Your task to perform on an android device: Clear the shopping cart on bestbuy.com. Search for bose quietcomfort 35 on bestbuy.com, select the first entry, and add it to the cart. Image 0: 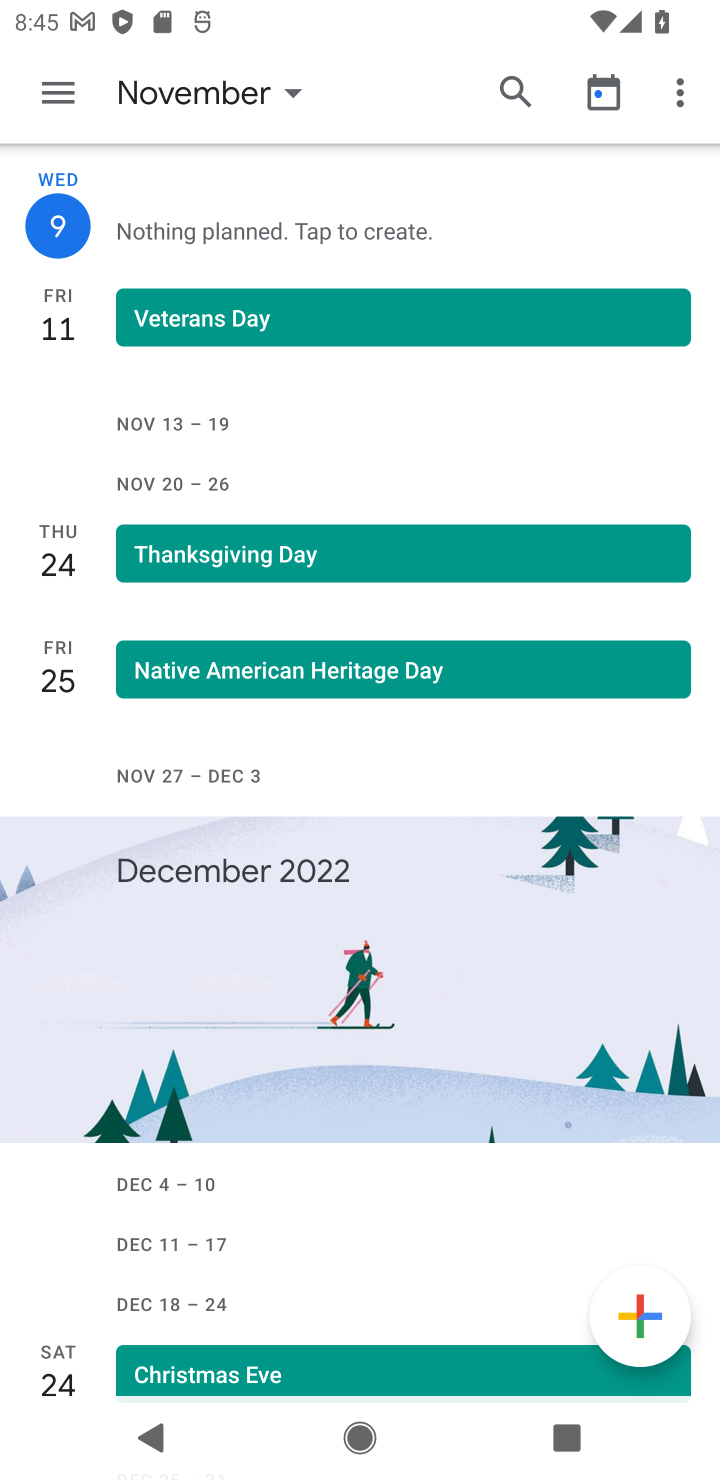
Step 0: press home button
Your task to perform on an android device: Clear the shopping cart on bestbuy.com. Search for bose quietcomfort 35 on bestbuy.com, select the first entry, and add it to the cart. Image 1: 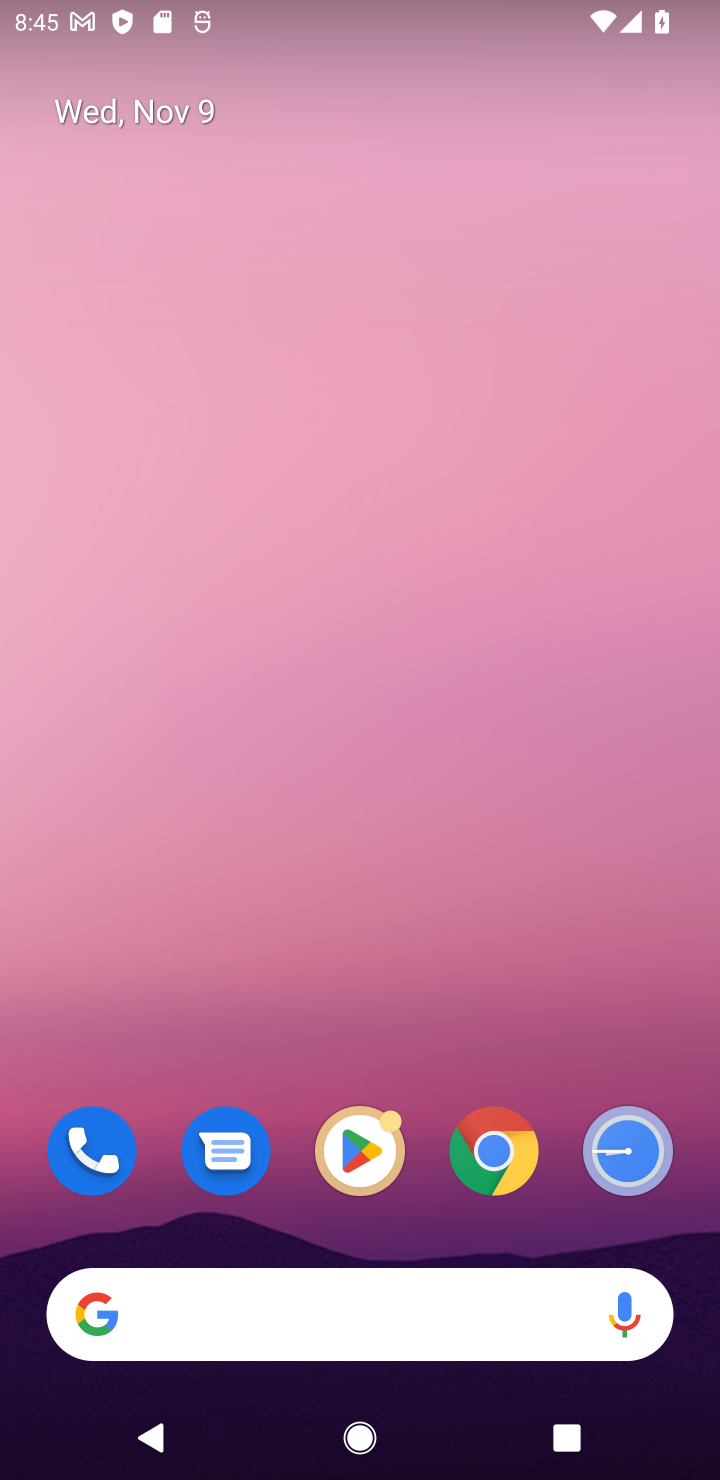
Step 1: click (518, 1164)
Your task to perform on an android device: Clear the shopping cart on bestbuy.com. Search for bose quietcomfort 35 on bestbuy.com, select the first entry, and add it to the cart. Image 2: 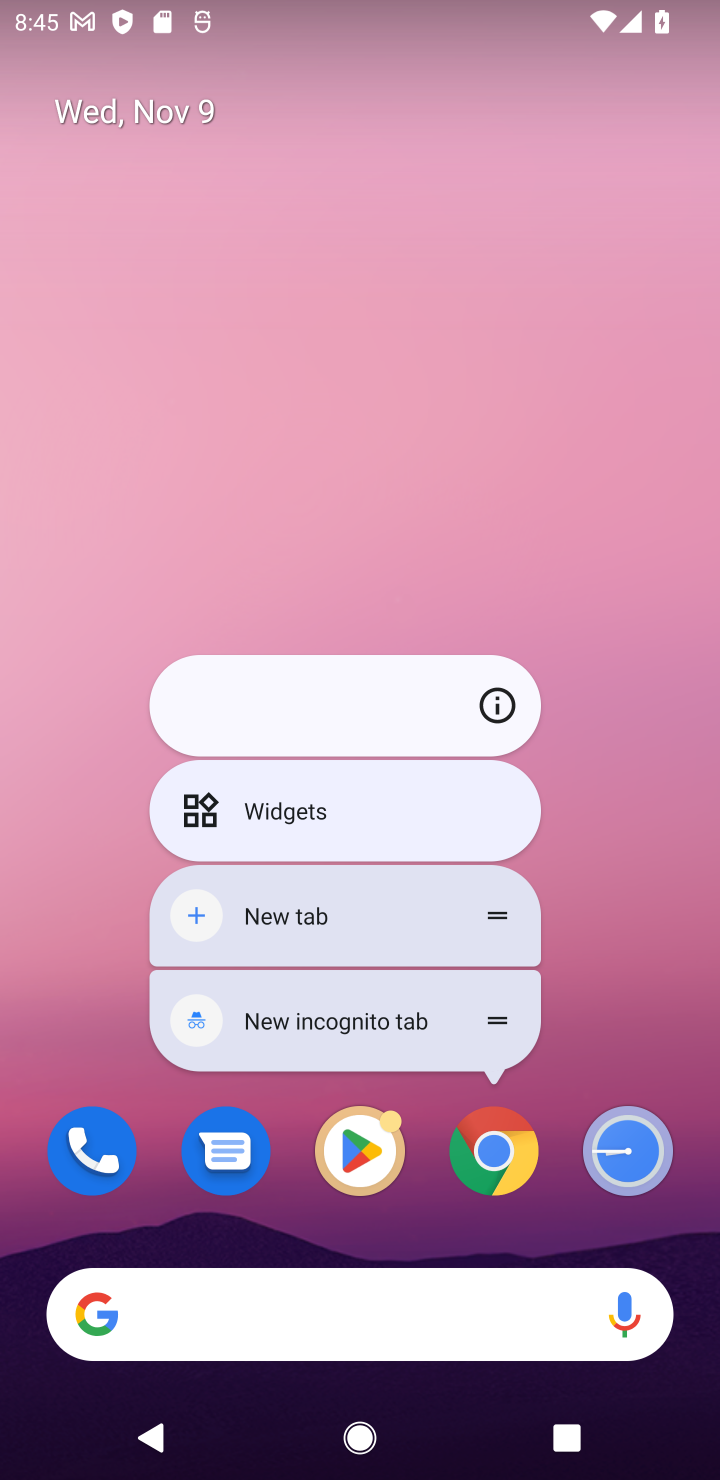
Step 2: click (514, 1148)
Your task to perform on an android device: Clear the shopping cart on bestbuy.com. Search for bose quietcomfort 35 on bestbuy.com, select the first entry, and add it to the cart. Image 3: 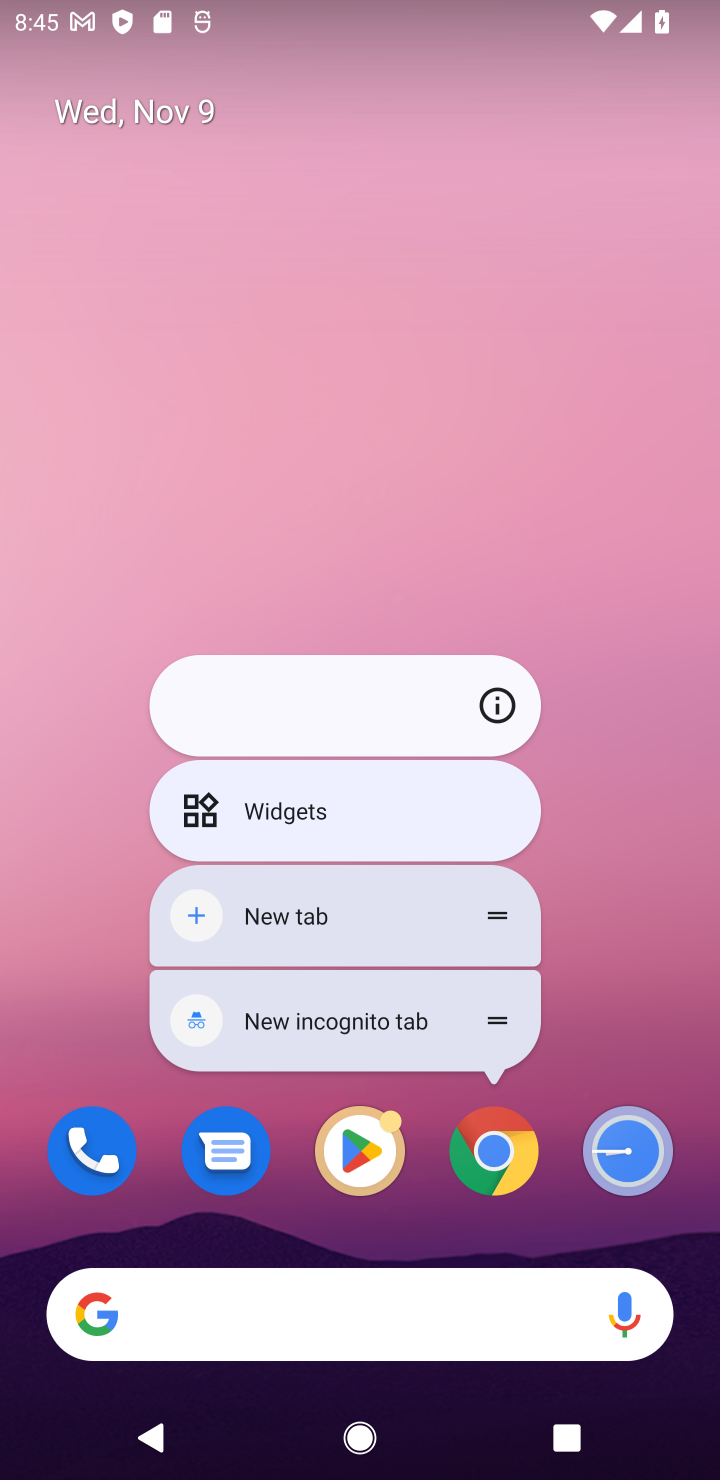
Step 3: click (514, 1148)
Your task to perform on an android device: Clear the shopping cart on bestbuy.com. Search for bose quietcomfort 35 on bestbuy.com, select the first entry, and add it to the cart. Image 4: 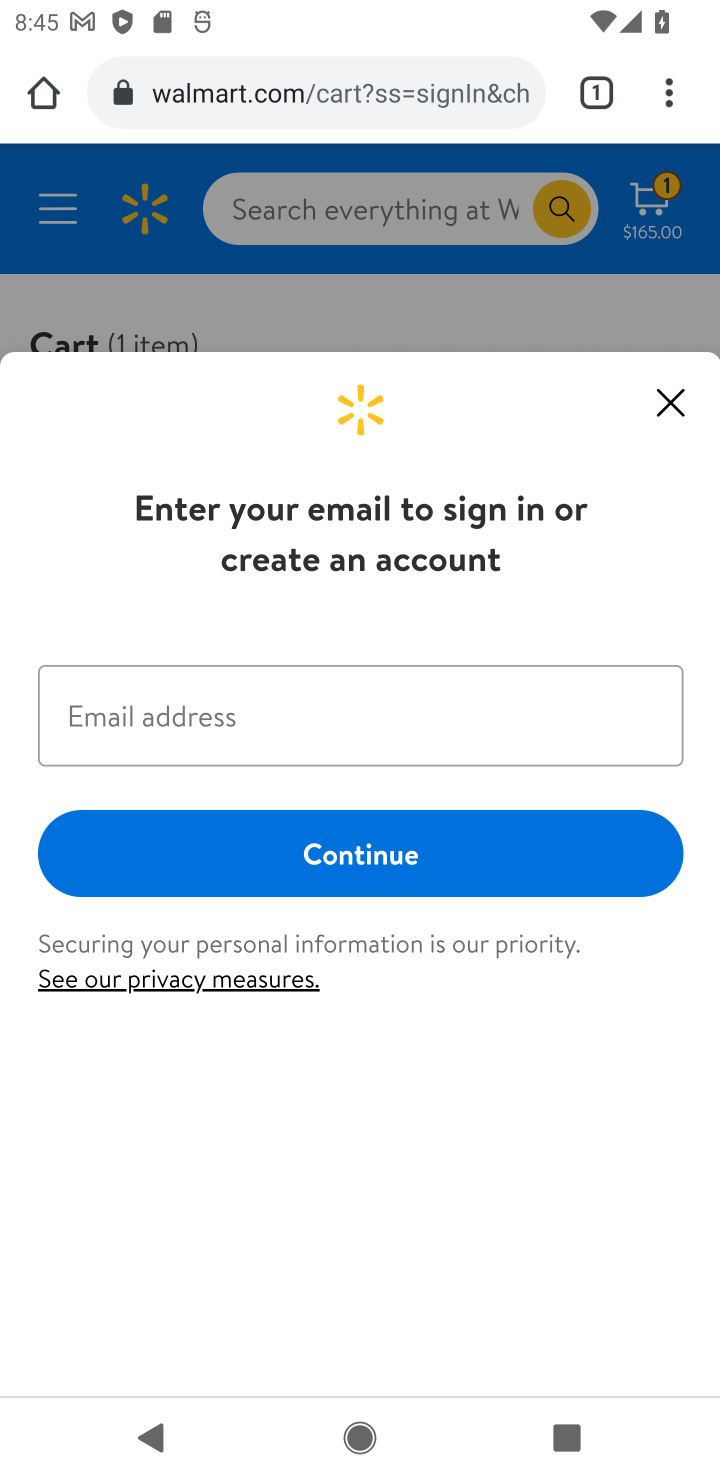
Step 4: click (514, 1148)
Your task to perform on an android device: Clear the shopping cart on bestbuy.com. Search for bose quietcomfort 35 on bestbuy.com, select the first entry, and add it to the cart. Image 5: 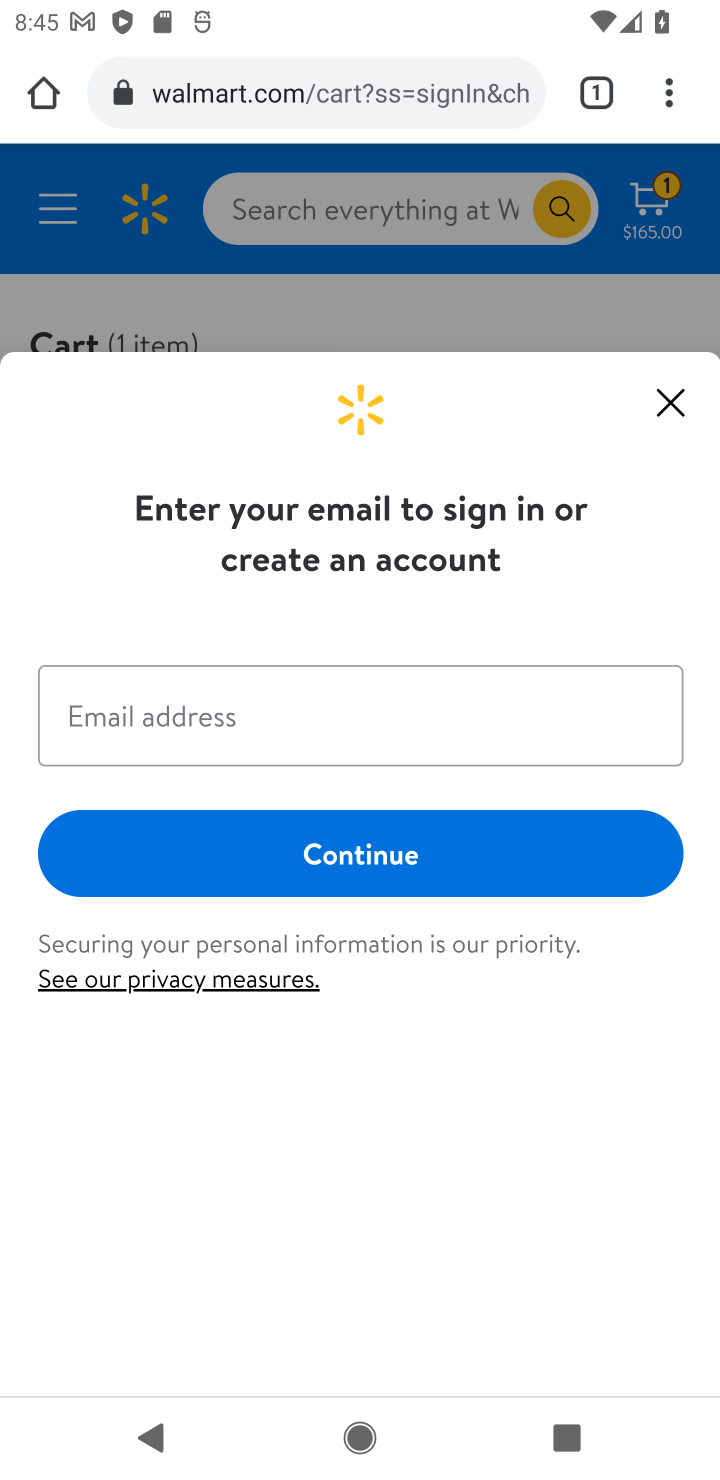
Step 5: click (285, 102)
Your task to perform on an android device: Clear the shopping cart on bestbuy.com. Search for bose quietcomfort 35 on bestbuy.com, select the first entry, and add it to the cart. Image 6: 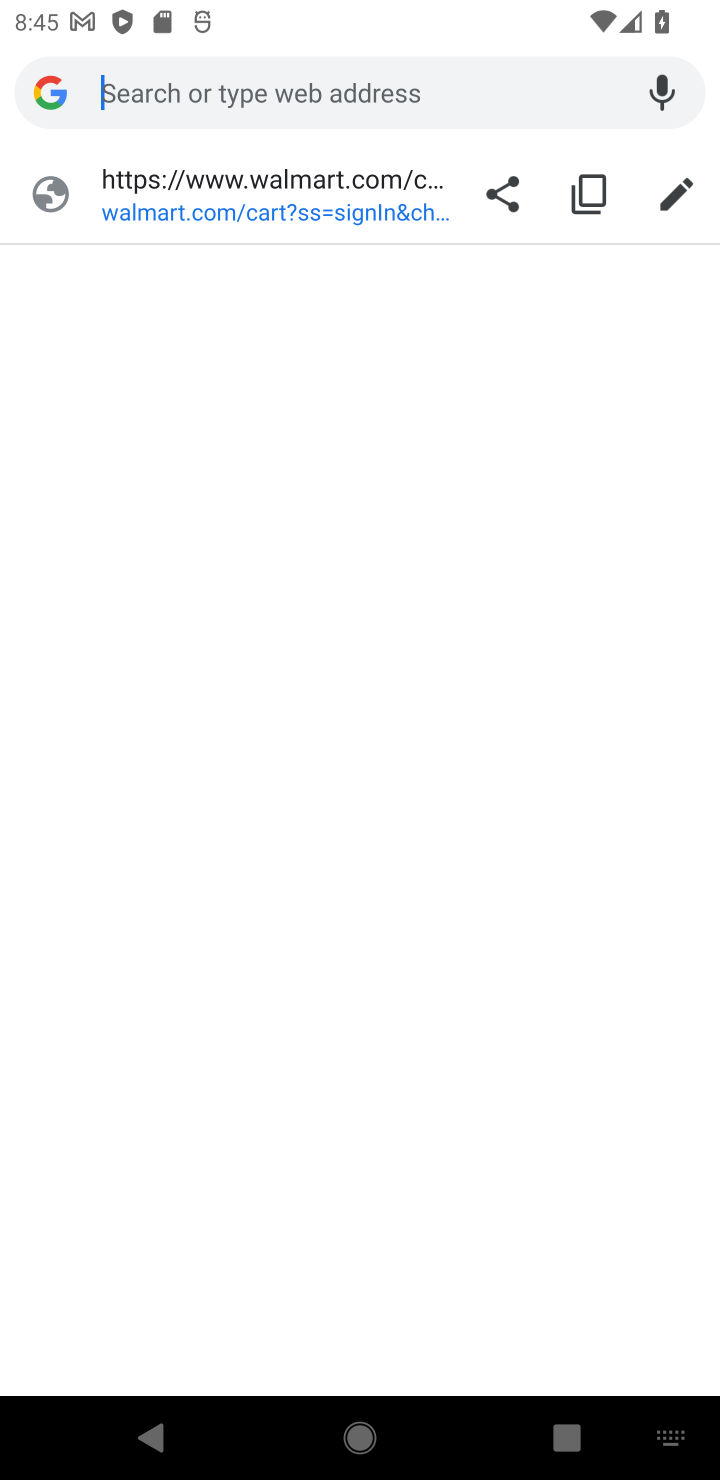
Step 6: type "bestbuy.com"
Your task to perform on an android device: Clear the shopping cart on bestbuy.com. Search for bose quietcomfort 35 on bestbuy.com, select the first entry, and add it to the cart. Image 7: 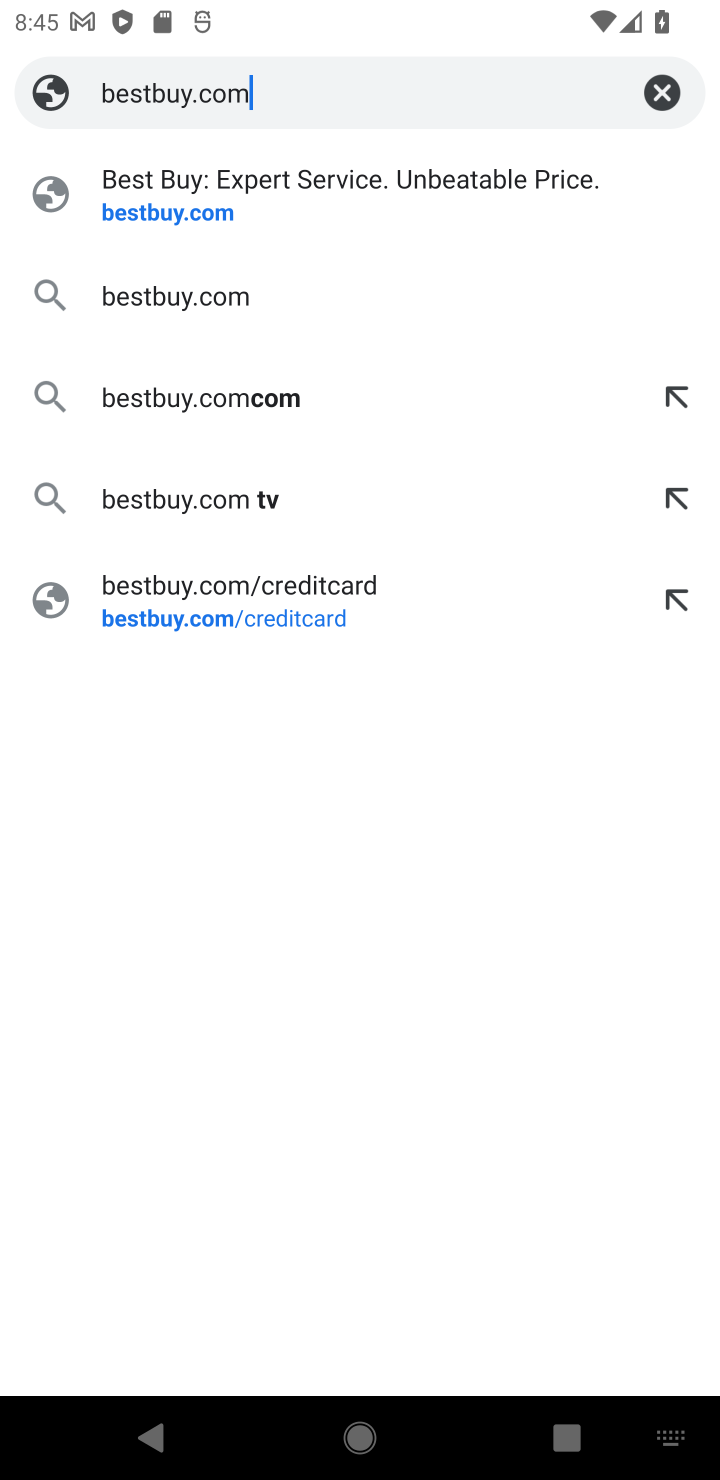
Step 7: press enter
Your task to perform on an android device: Clear the shopping cart on bestbuy.com. Search for bose quietcomfort 35 on bestbuy.com, select the first entry, and add it to the cart. Image 8: 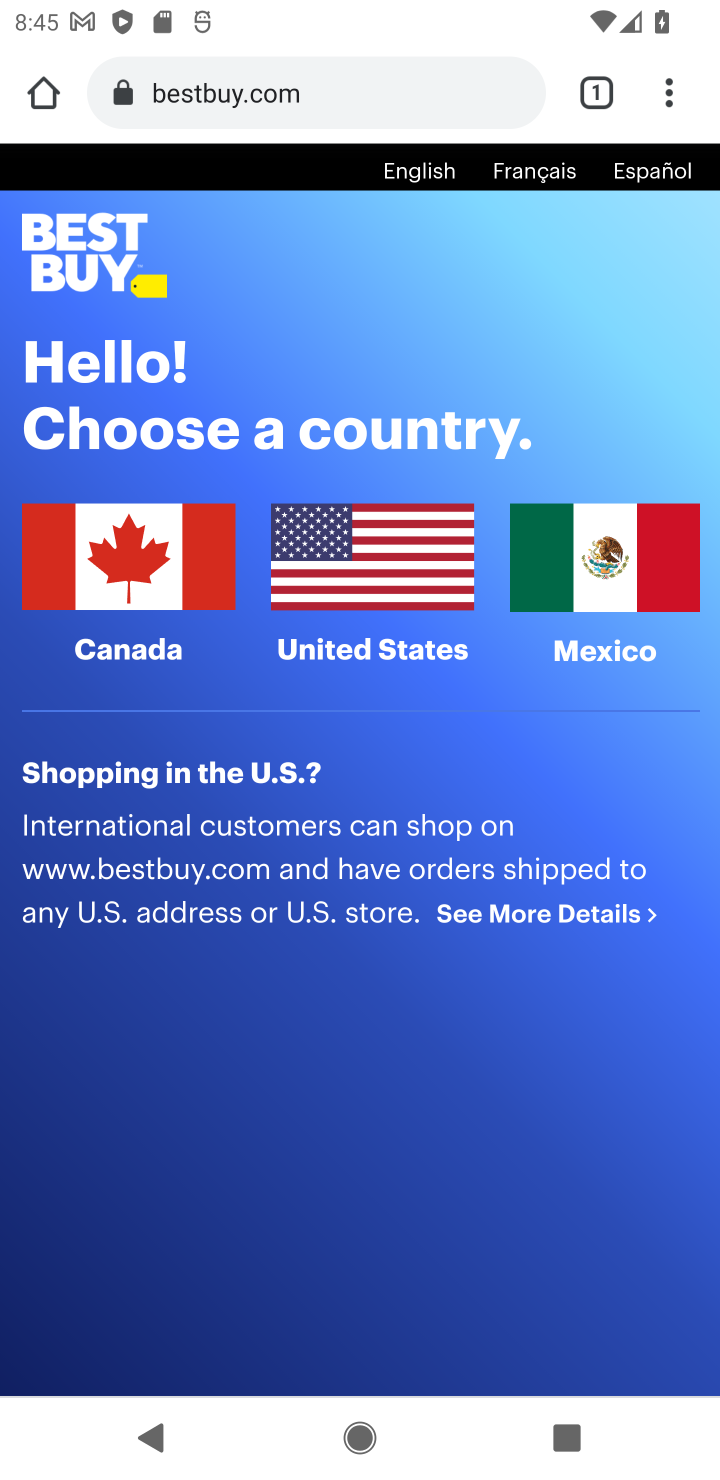
Step 8: click (373, 580)
Your task to perform on an android device: Clear the shopping cart on bestbuy.com. Search for bose quietcomfort 35 on bestbuy.com, select the first entry, and add it to the cart. Image 9: 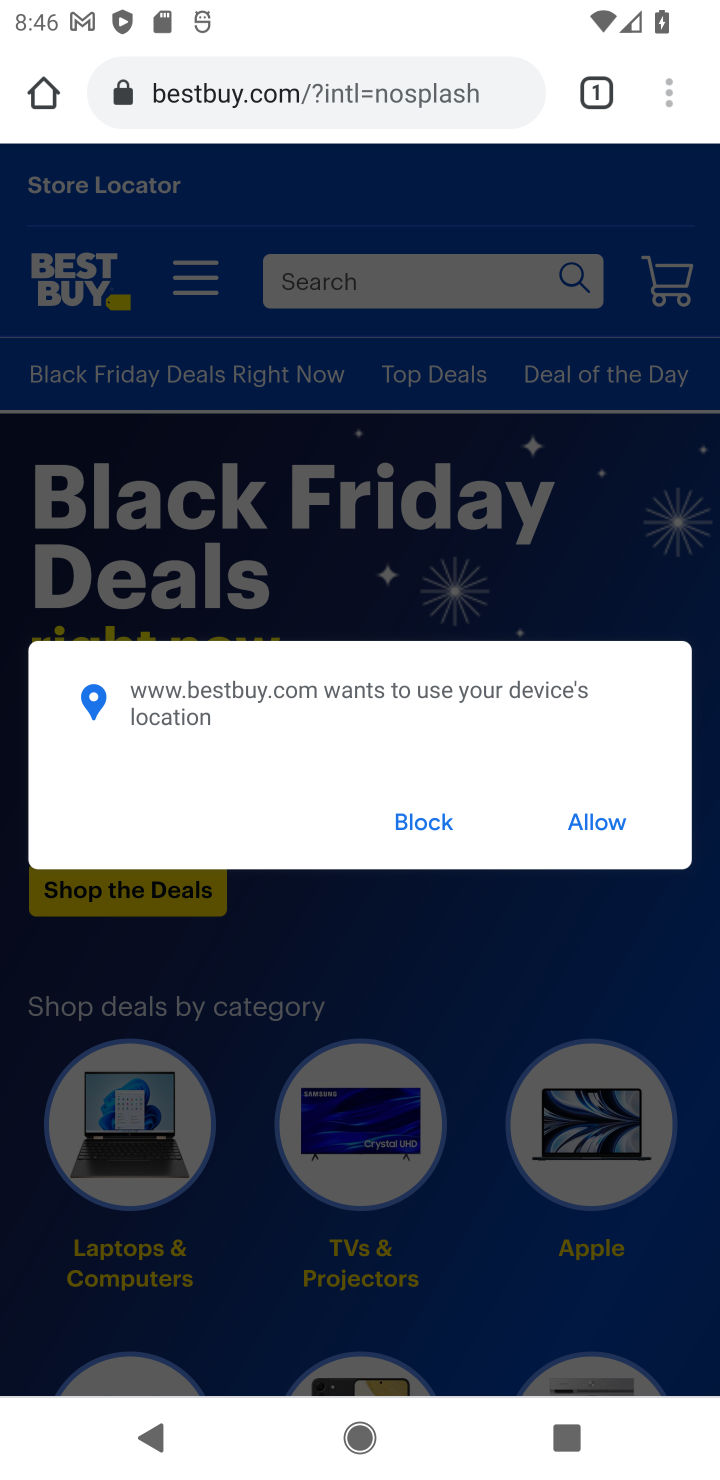
Step 9: click (417, 831)
Your task to perform on an android device: Clear the shopping cart on bestbuy.com. Search for bose quietcomfort 35 on bestbuy.com, select the first entry, and add it to the cart. Image 10: 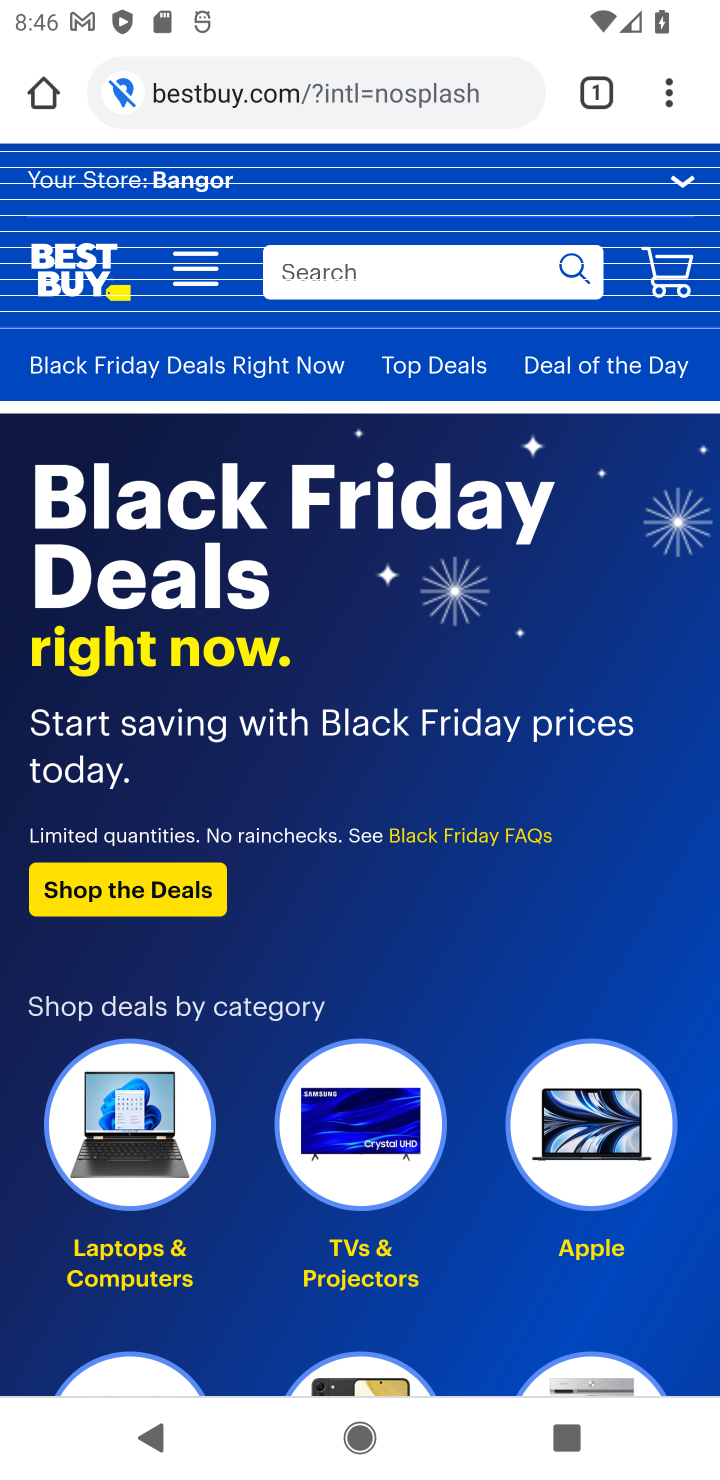
Step 10: click (663, 289)
Your task to perform on an android device: Clear the shopping cart on bestbuy.com. Search for bose quietcomfort 35 on bestbuy.com, select the first entry, and add it to the cart. Image 11: 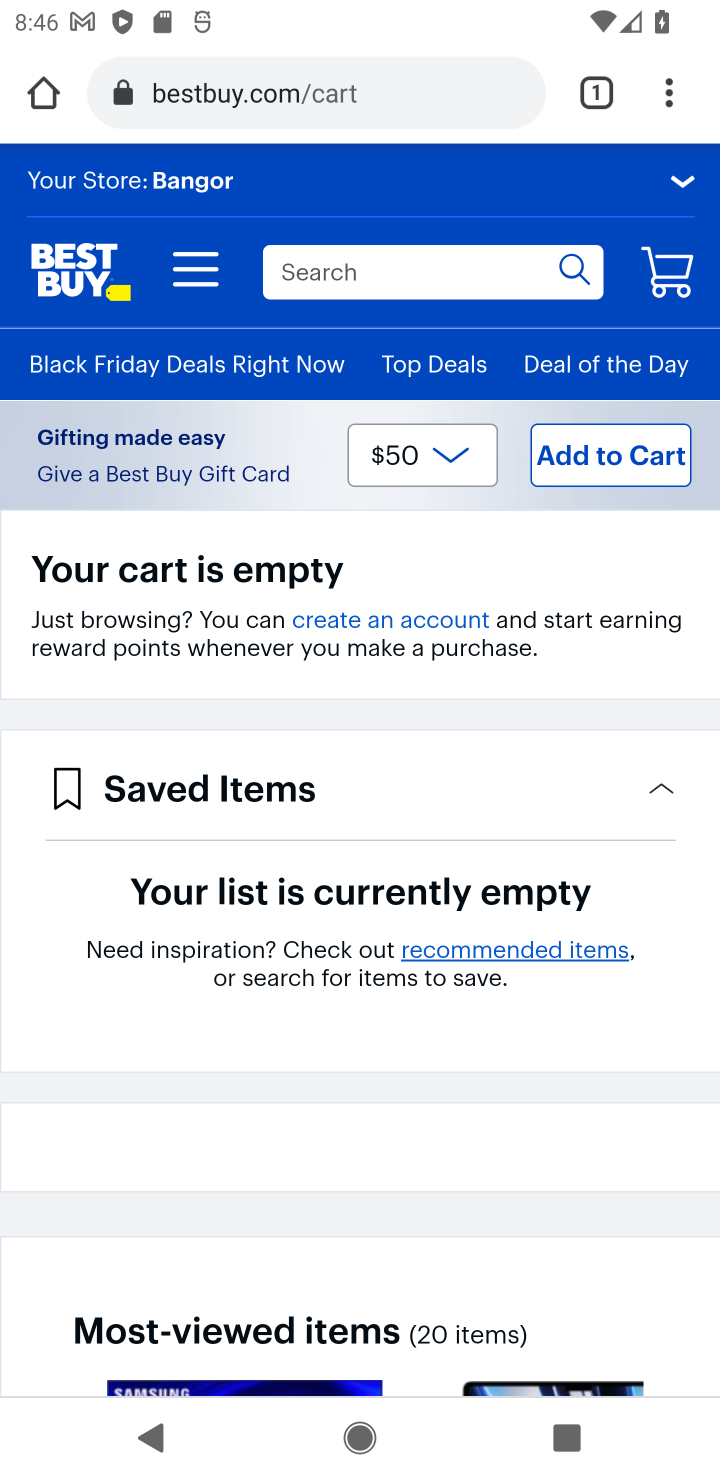
Step 11: click (393, 270)
Your task to perform on an android device: Clear the shopping cart on bestbuy.com. Search for bose quietcomfort 35 on bestbuy.com, select the first entry, and add it to the cart. Image 12: 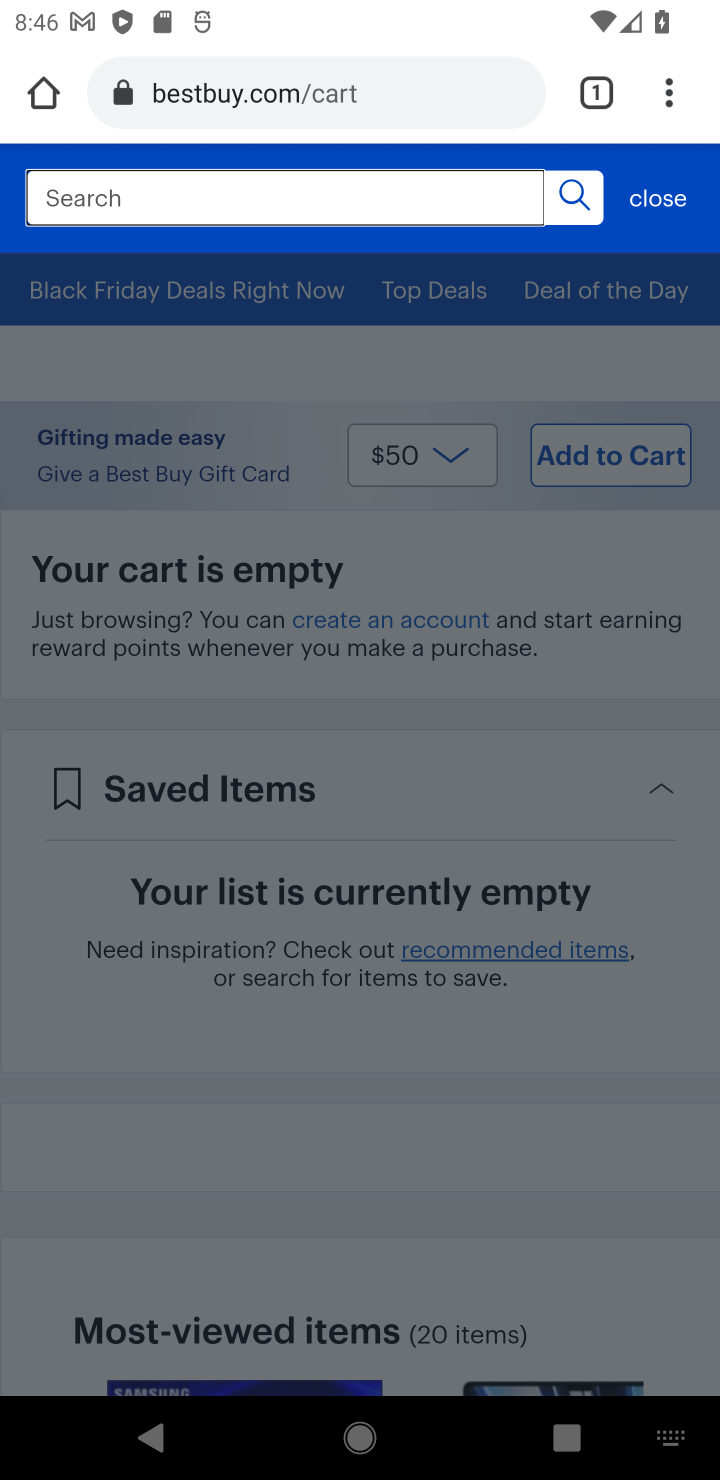
Step 12: type "bose quietcomfort 35"
Your task to perform on an android device: Clear the shopping cart on bestbuy.com. Search for bose quietcomfort 35 on bestbuy.com, select the first entry, and add it to the cart. Image 13: 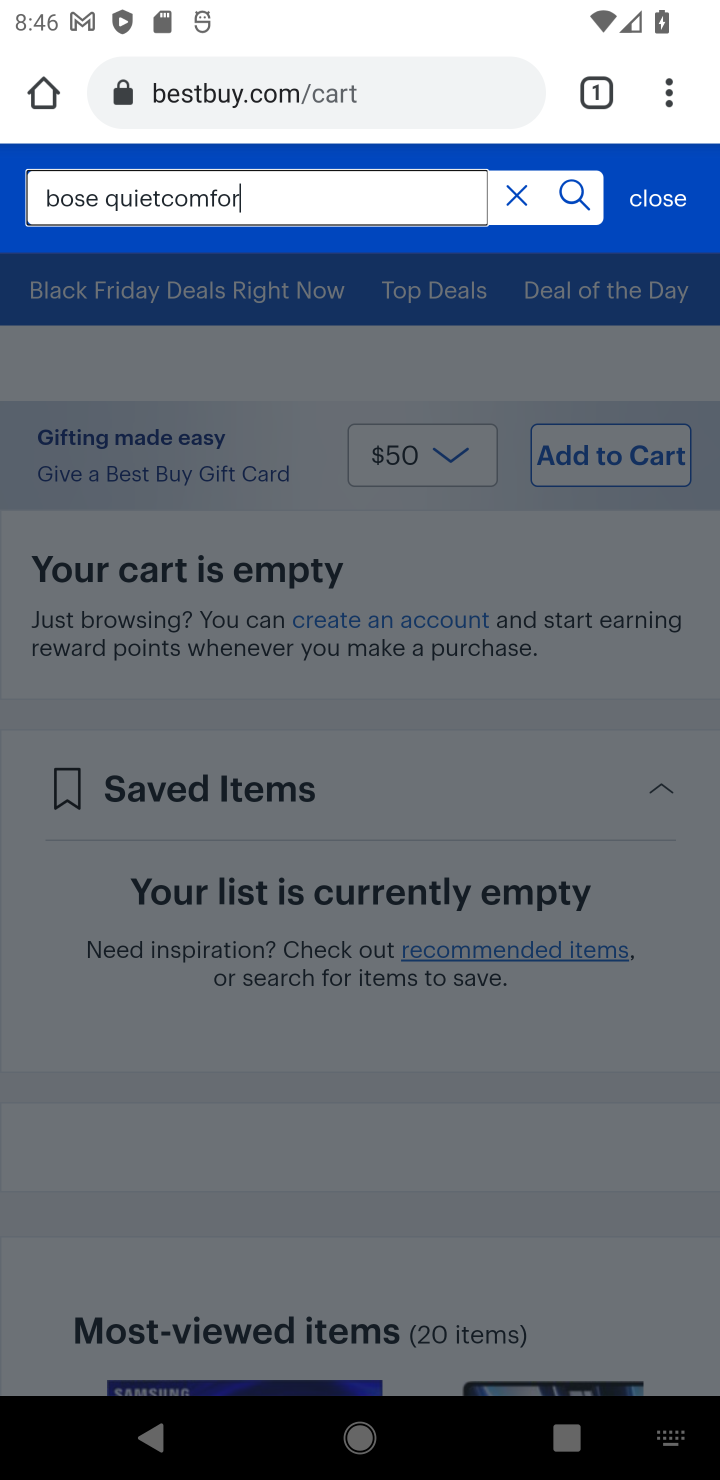
Step 13: press enter
Your task to perform on an android device: Clear the shopping cart on bestbuy.com. Search for bose quietcomfort 35 on bestbuy.com, select the first entry, and add it to the cart. Image 14: 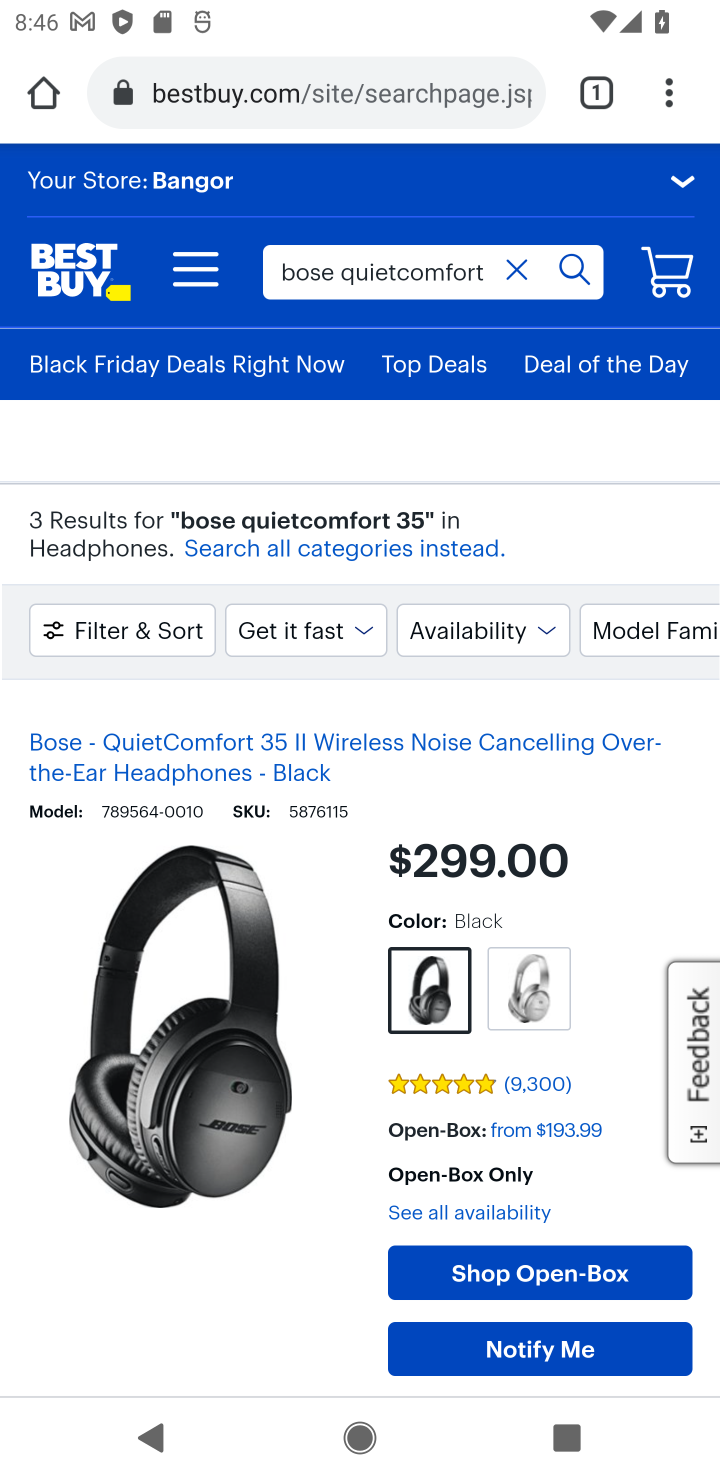
Step 14: task complete